Your task to perform on an android device: Show me popular videos on Youtube Image 0: 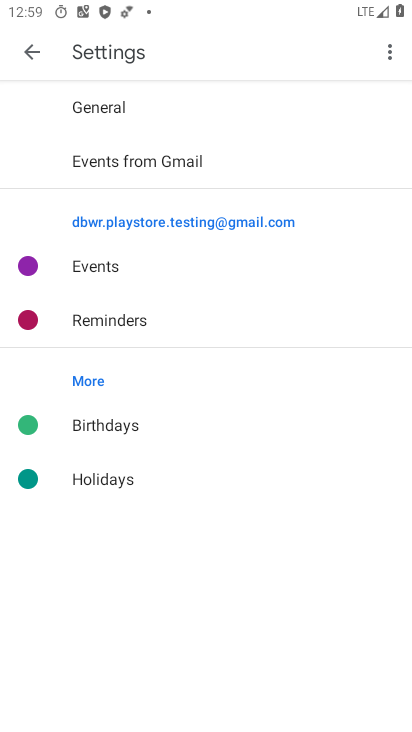
Step 0: press home button
Your task to perform on an android device: Show me popular videos on Youtube Image 1: 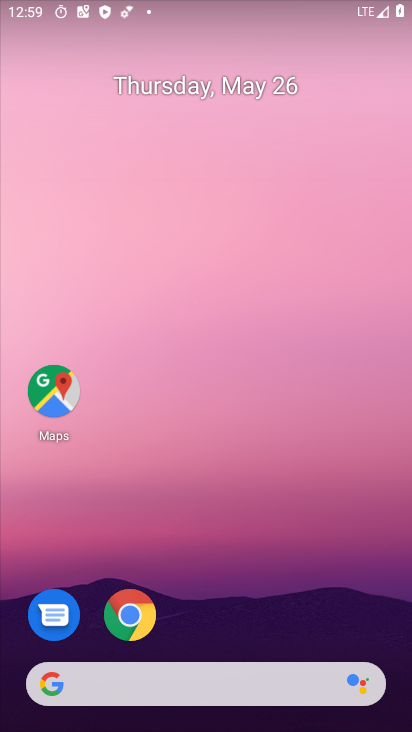
Step 1: drag from (247, 616) to (217, 152)
Your task to perform on an android device: Show me popular videos on Youtube Image 2: 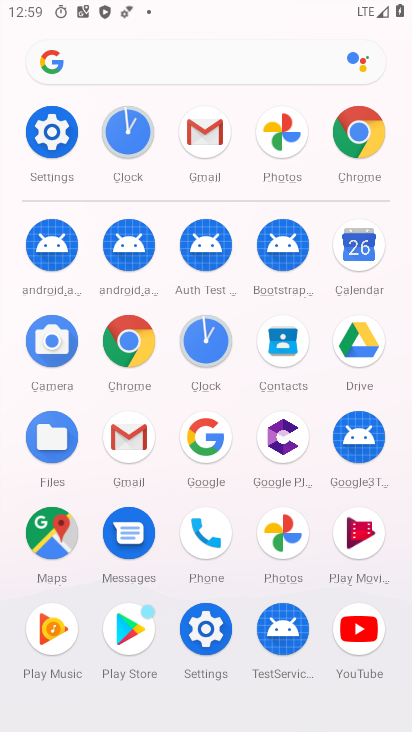
Step 2: click (368, 614)
Your task to perform on an android device: Show me popular videos on Youtube Image 3: 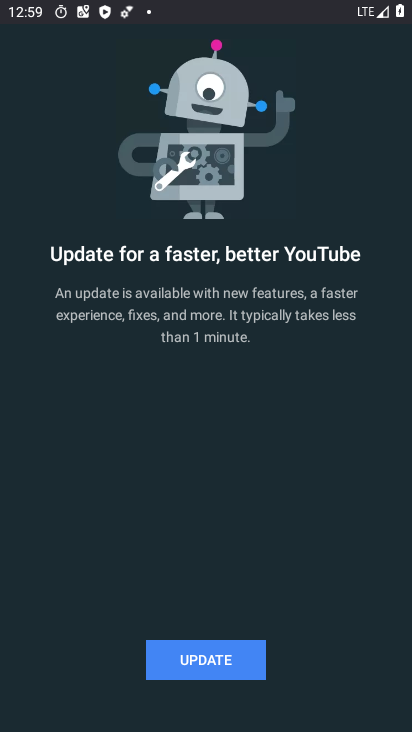
Step 3: click (245, 659)
Your task to perform on an android device: Show me popular videos on Youtube Image 4: 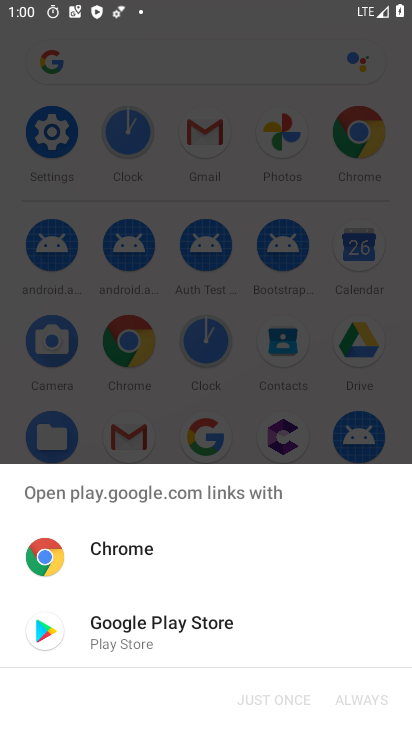
Step 4: click (263, 639)
Your task to perform on an android device: Show me popular videos on Youtube Image 5: 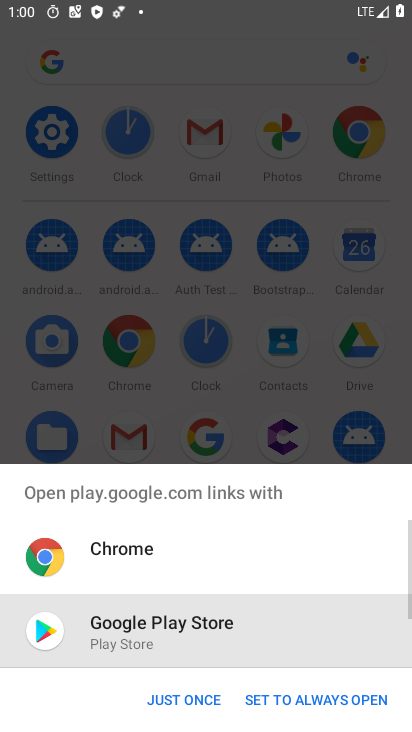
Step 5: click (201, 695)
Your task to perform on an android device: Show me popular videos on Youtube Image 6: 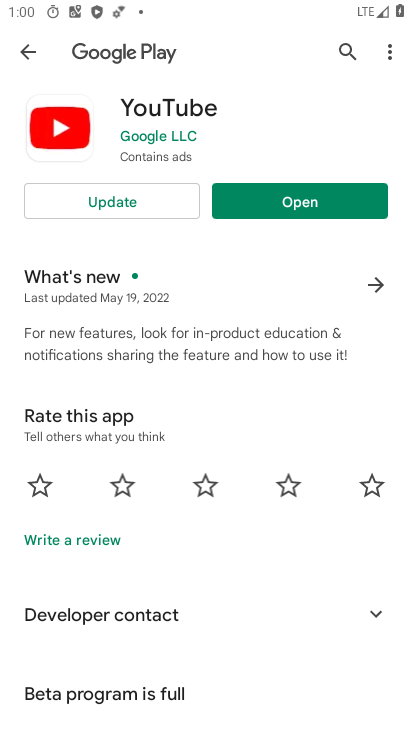
Step 6: click (121, 197)
Your task to perform on an android device: Show me popular videos on Youtube Image 7: 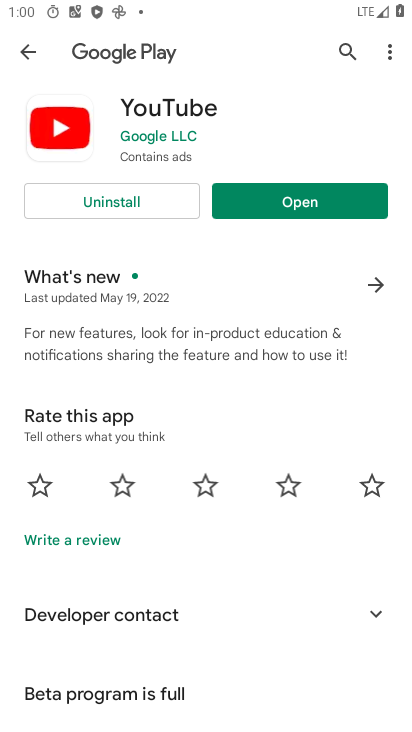
Step 7: click (334, 198)
Your task to perform on an android device: Show me popular videos on Youtube Image 8: 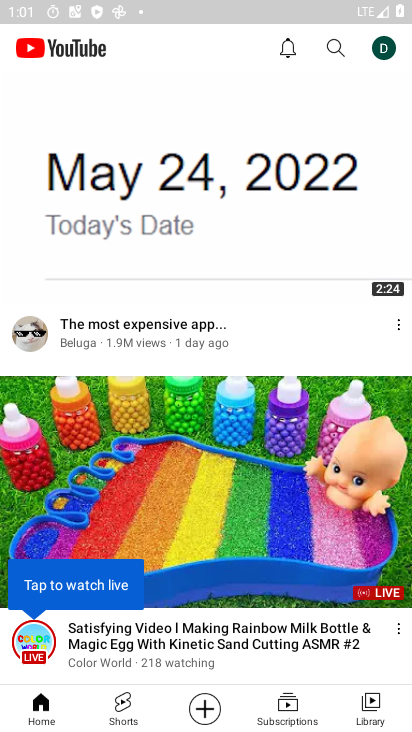
Step 8: click (272, 713)
Your task to perform on an android device: Show me popular videos on Youtube Image 9: 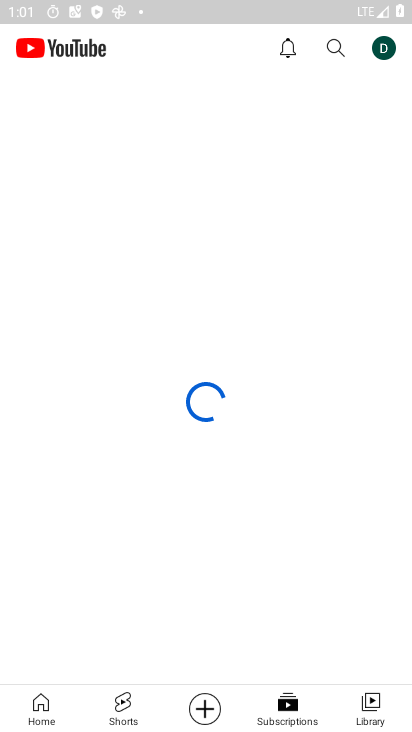
Step 9: click (370, 719)
Your task to perform on an android device: Show me popular videos on Youtube Image 10: 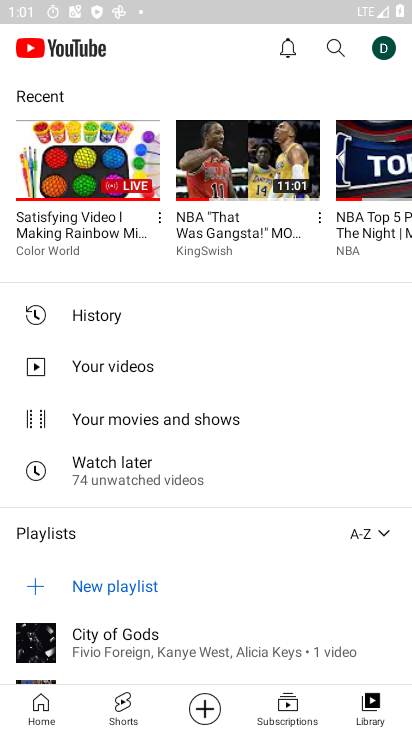
Step 10: task complete